Your task to perform on an android device: toggle airplane mode Image 0: 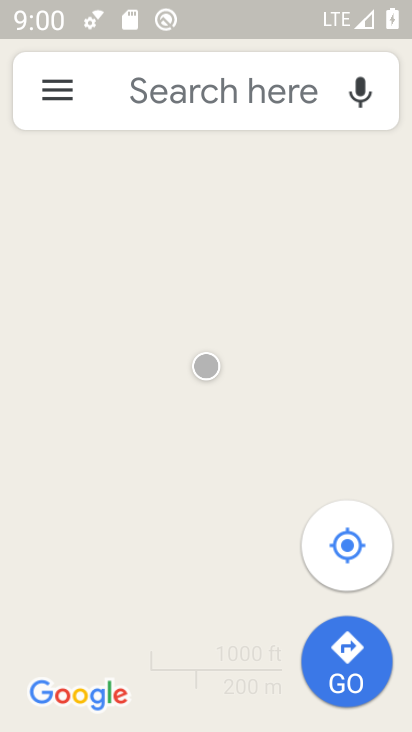
Step 0: press home button
Your task to perform on an android device: toggle airplane mode Image 1: 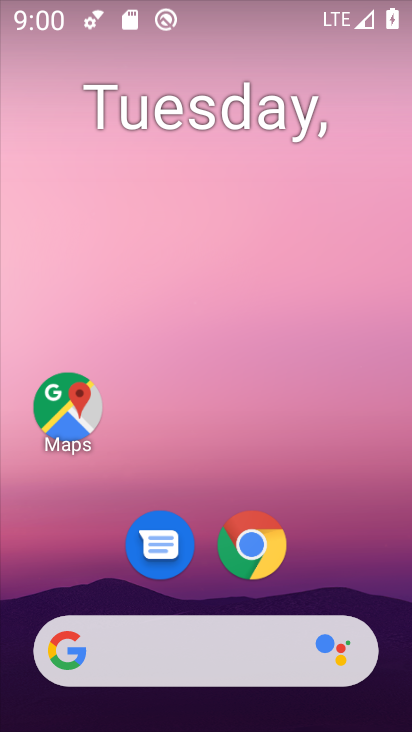
Step 1: drag from (203, 590) to (169, 33)
Your task to perform on an android device: toggle airplane mode Image 2: 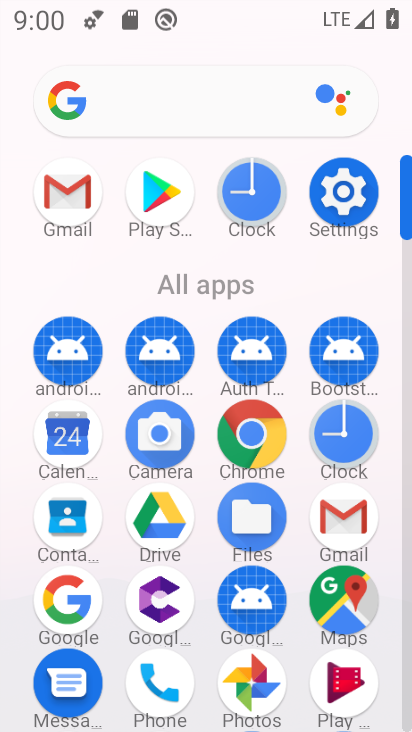
Step 2: click (329, 201)
Your task to perform on an android device: toggle airplane mode Image 3: 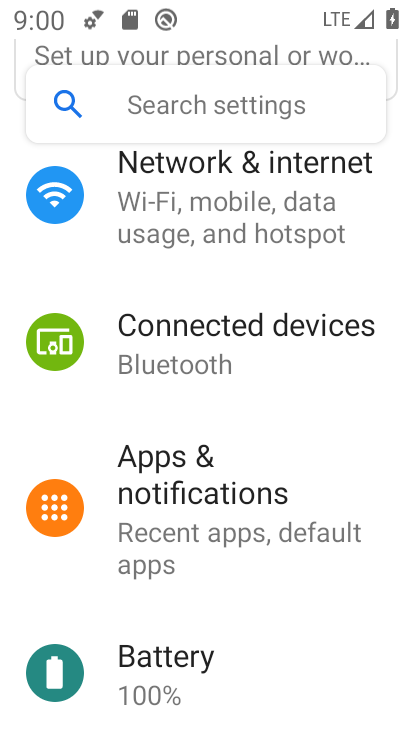
Step 3: click (247, 206)
Your task to perform on an android device: toggle airplane mode Image 4: 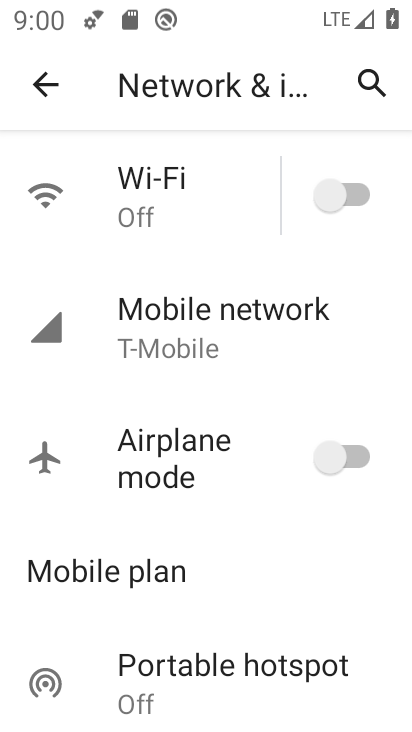
Step 4: click (344, 468)
Your task to perform on an android device: toggle airplane mode Image 5: 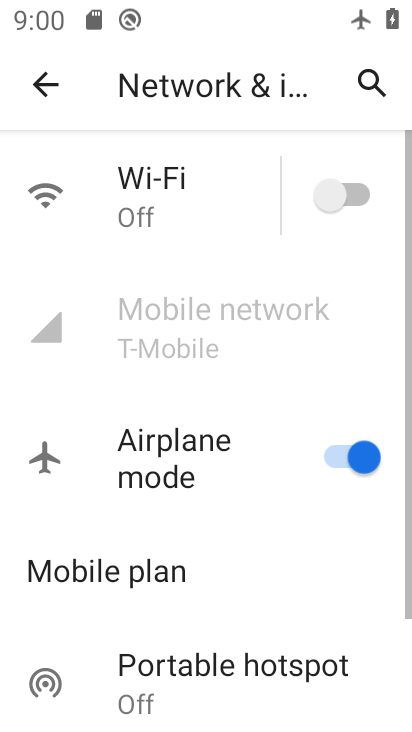
Step 5: task complete